Your task to perform on an android device: turn on showing notifications on the lock screen Image 0: 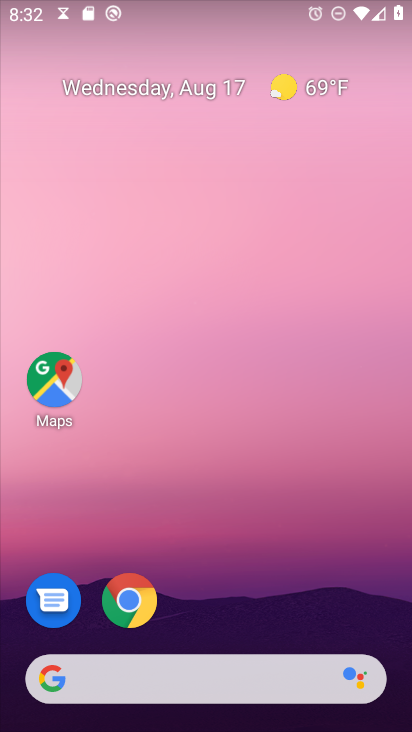
Step 0: press home button
Your task to perform on an android device: turn on showing notifications on the lock screen Image 1: 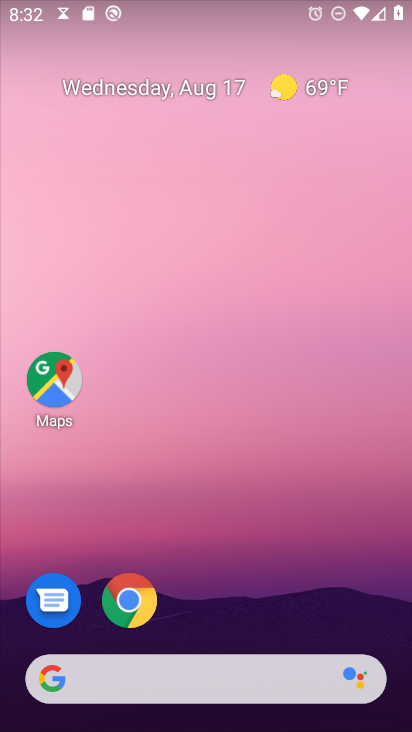
Step 1: drag from (253, 628) to (250, 142)
Your task to perform on an android device: turn on showing notifications on the lock screen Image 2: 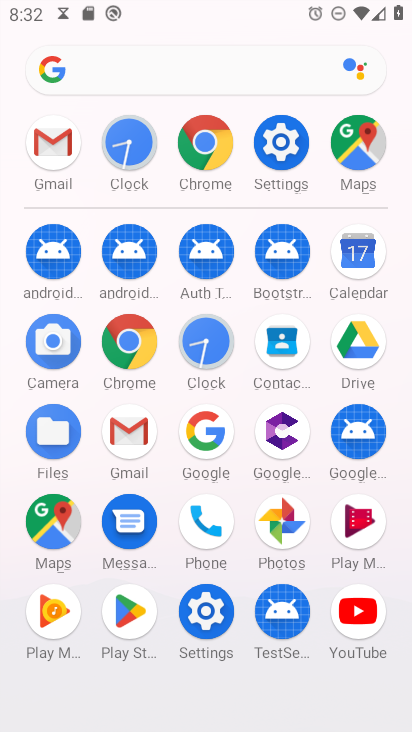
Step 2: click (276, 146)
Your task to perform on an android device: turn on showing notifications on the lock screen Image 3: 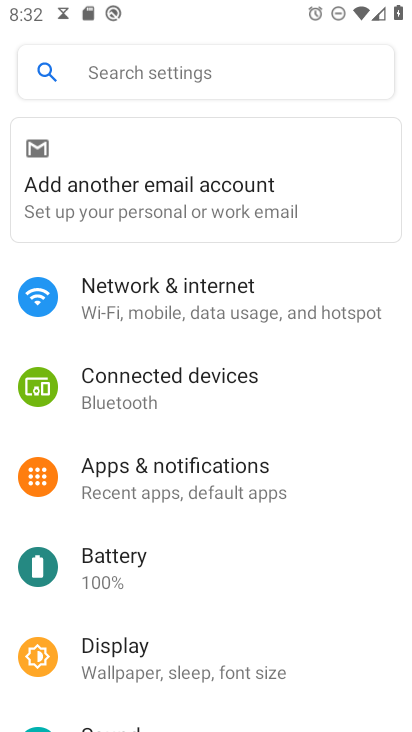
Step 3: click (204, 474)
Your task to perform on an android device: turn on showing notifications on the lock screen Image 4: 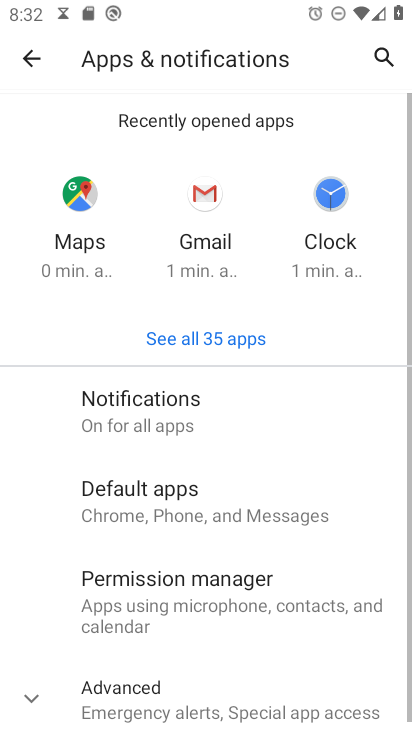
Step 4: click (118, 398)
Your task to perform on an android device: turn on showing notifications on the lock screen Image 5: 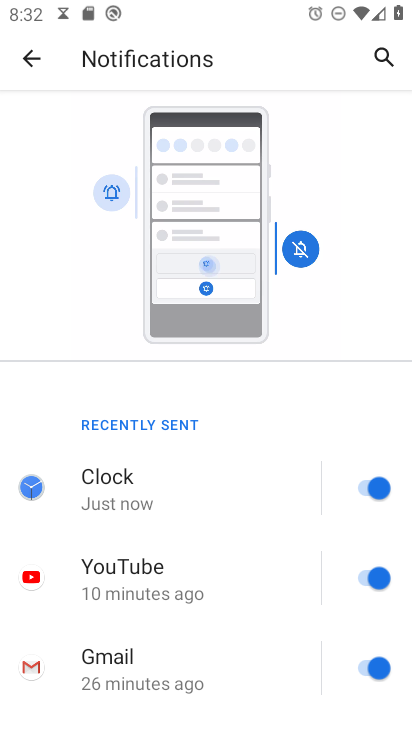
Step 5: drag from (220, 526) to (187, 69)
Your task to perform on an android device: turn on showing notifications on the lock screen Image 6: 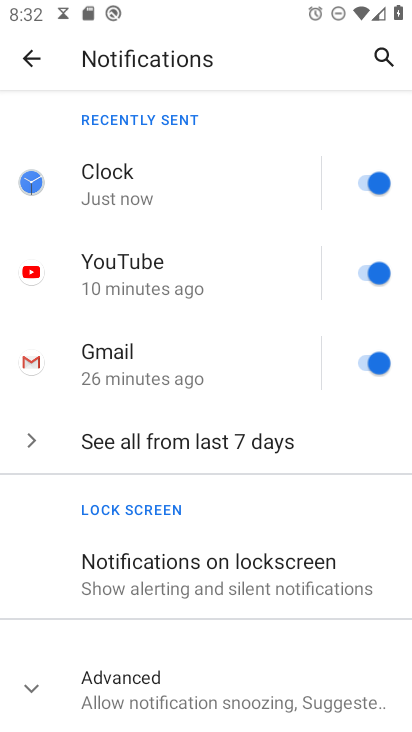
Step 6: click (198, 578)
Your task to perform on an android device: turn on showing notifications on the lock screen Image 7: 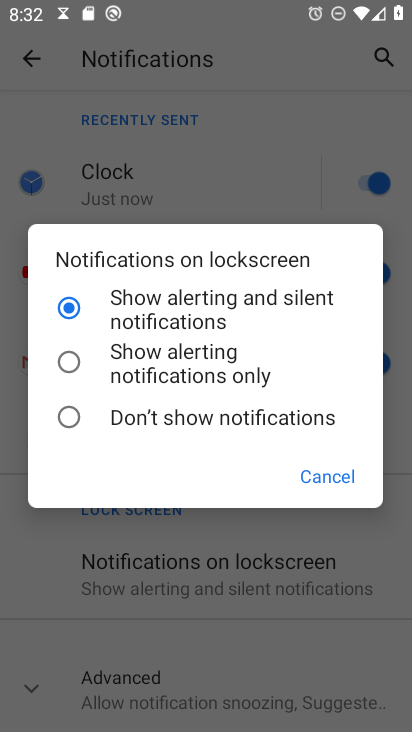
Step 7: task complete